Your task to perform on an android device: Search for Mexican restaurants on Maps Image 0: 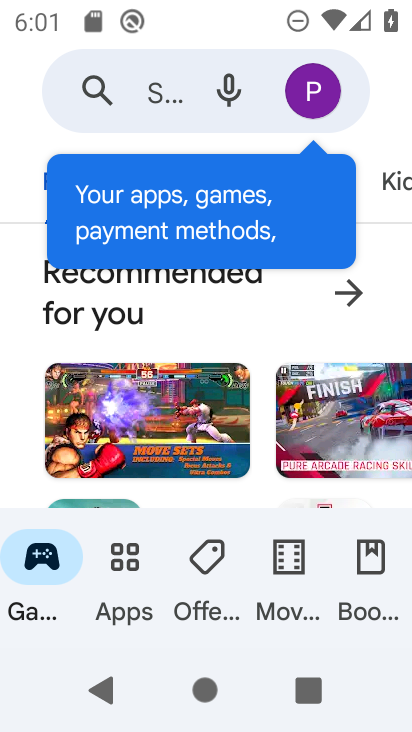
Step 0: press home button
Your task to perform on an android device: Search for Mexican restaurants on Maps Image 1: 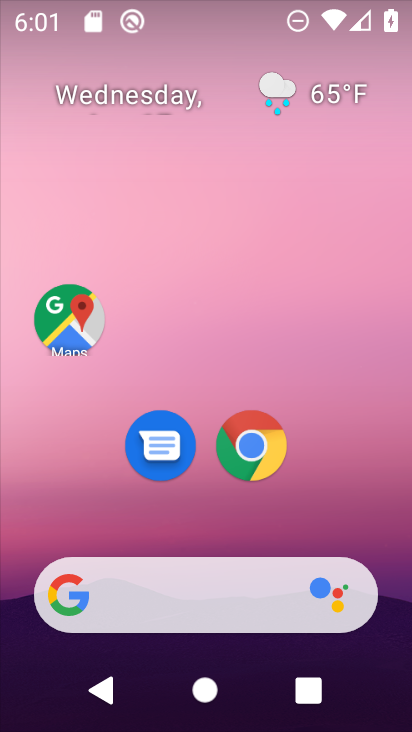
Step 1: click (65, 328)
Your task to perform on an android device: Search for Mexican restaurants on Maps Image 2: 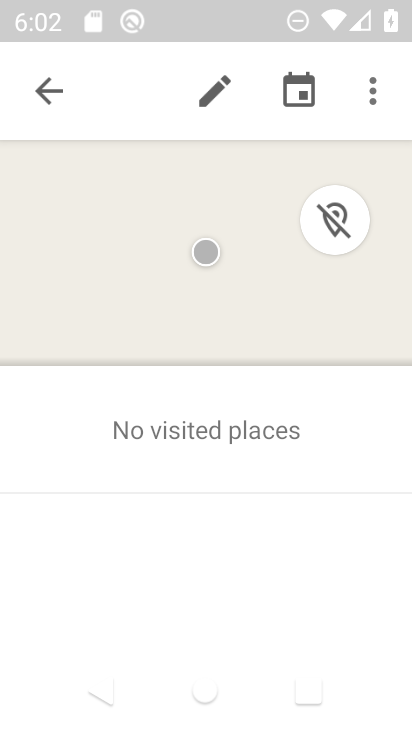
Step 2: click (30, 86)
Your task to perform on an android device: Search for Mexican restaurants on Maps Image 3: 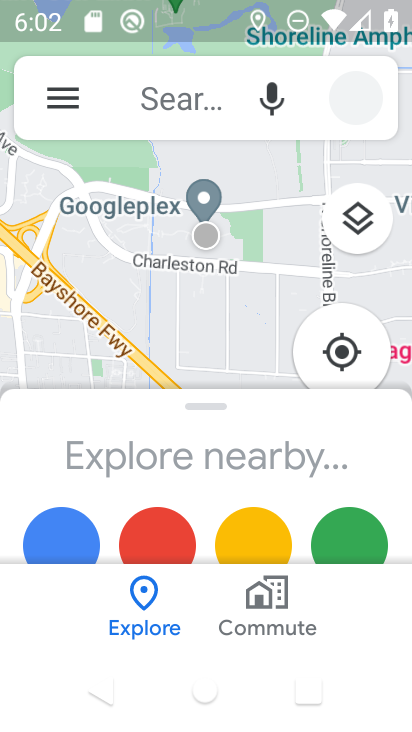
Step 3: click (136, 100)
Your task to perform on an android device: Search for Mexican restaurants on Maps Image 4: 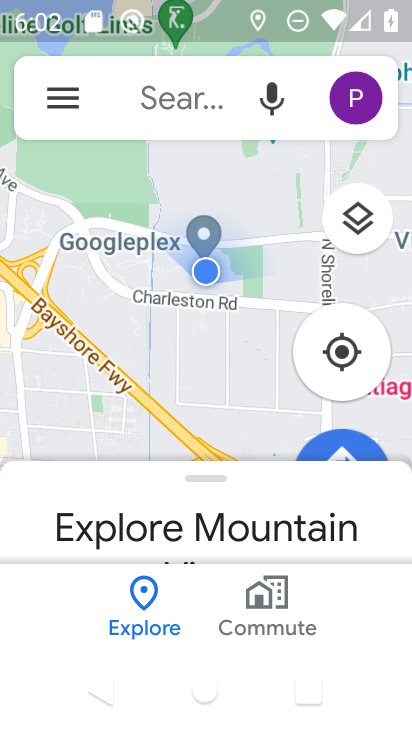
Step 4: type "Mexican restaurants"
Your task to perform on an android device: Search for Mexican restaurants on Maps Image 5: 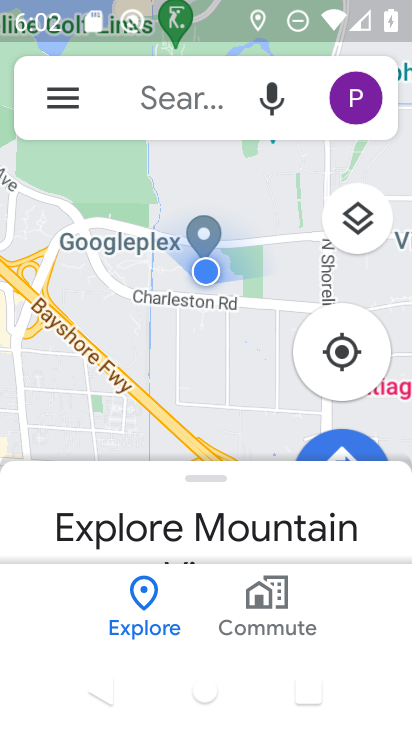
Step 5: click (180, 96)
Your task to perform on an android device: Search for Mexican restaurants on Maps Image 6: 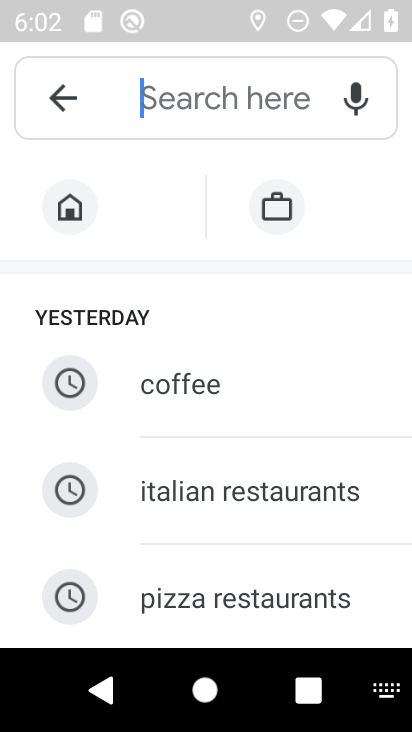
Step 6: drag from (185, 569) to (199, 231)
Your task to perform on an android device: Search for Mexican restaurants on Maps Image 7: 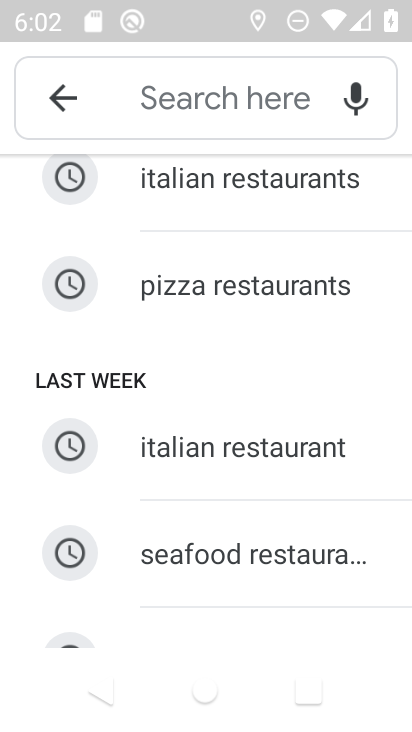
Step 7: drag from (199, 572) to (229, 249)
Your task to perform on an android device: Search for Mexican restaurants on Maps Image 8: 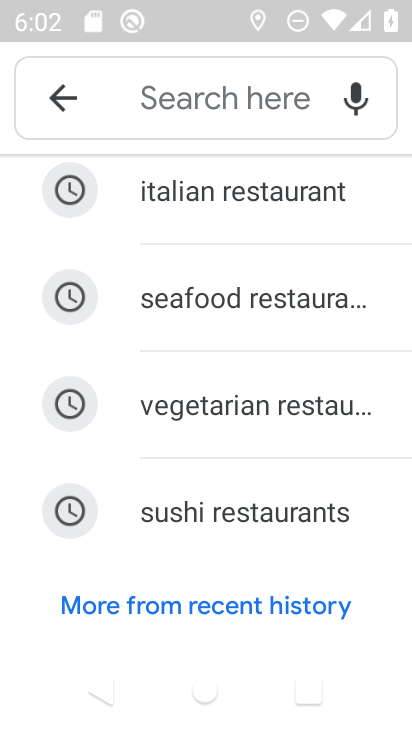
Step 8: click (193, 102)
Your task to perform on an android device: Search for Mexican restaurants on Maps Image 9: 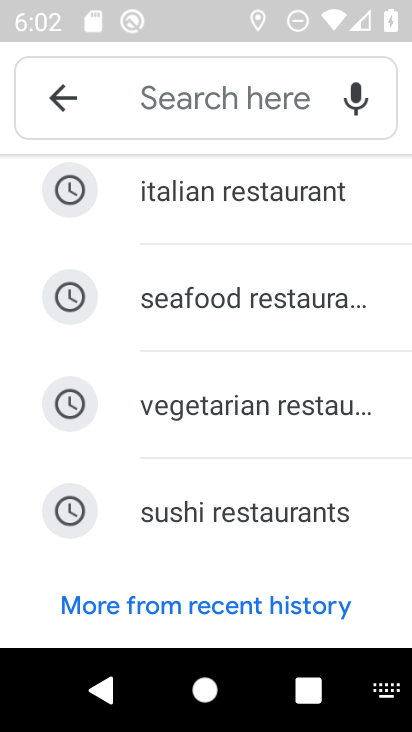
Step 9: type "Mexican restaurants"
Your task to perform on an android device: Search for Mexican restaurants on Maps Image 10: 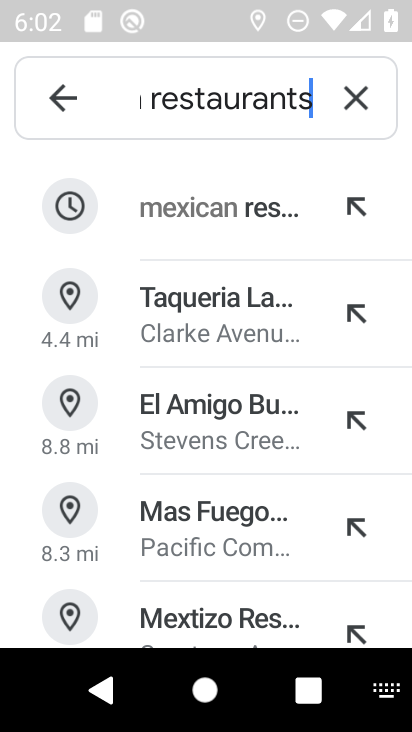
Step 10: click (219, 218)
Your task to perform on an android device: Search for Mexican restaurants on Maps Image 11: 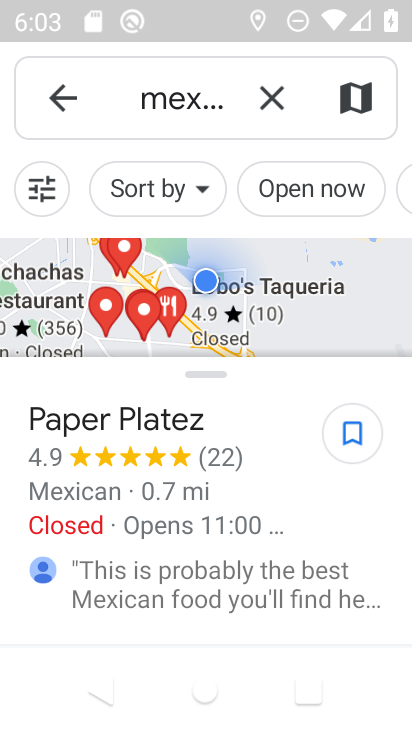
Step 11: task complete